Your task to perform on an android device: Clear the cart on costco. Search for "usb-c to usb-a" on costco, select the first entry, add it to the cart, then select checkout. Image 0: 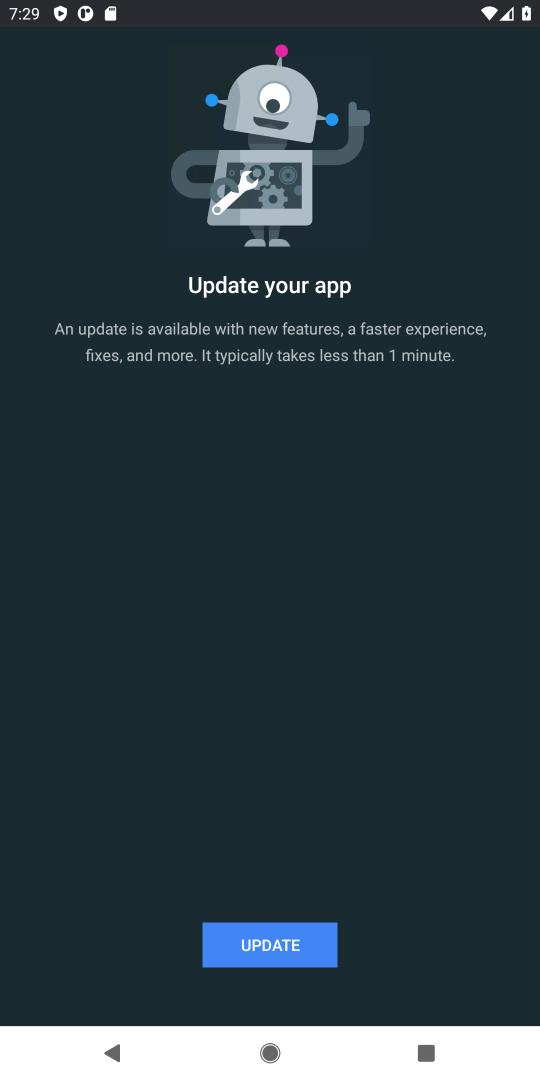
Step 0: press home button
Your task to perform on an android device: Clear the cart on costco. Search for "usb-c to usb-a" on costco, select the first entry, add it to the cart, then select checkout. Image 1: 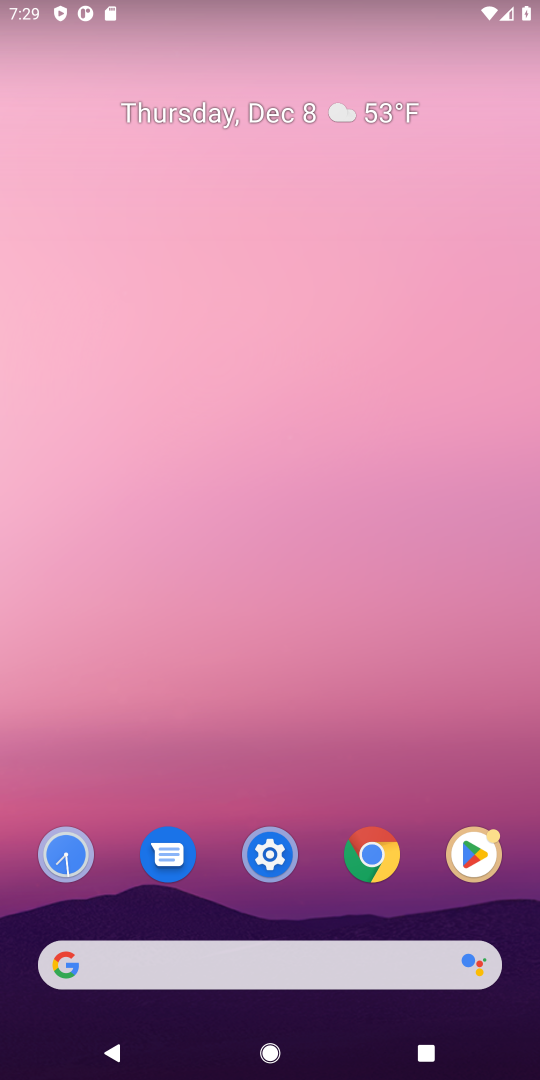
Step 1: click (91, 970)
Your task to perform on an android device: Clear the cart on costco. Search for "usb-c to usb-a" on costco, select the first entry, add it to the cart, then select checkout. Image 2: 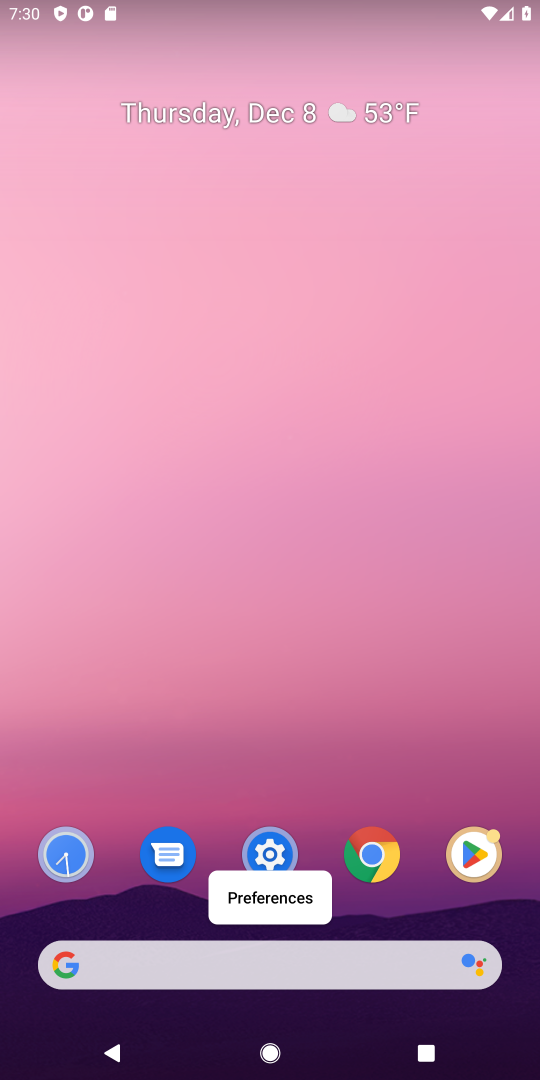
Step 2: click (97, 969)
Your task to perform on an android device: Clear the cart on costco. Search for "usb-c to usb-a" on costco, select the first entry, add it to the cart, then select checkout. Image 3: 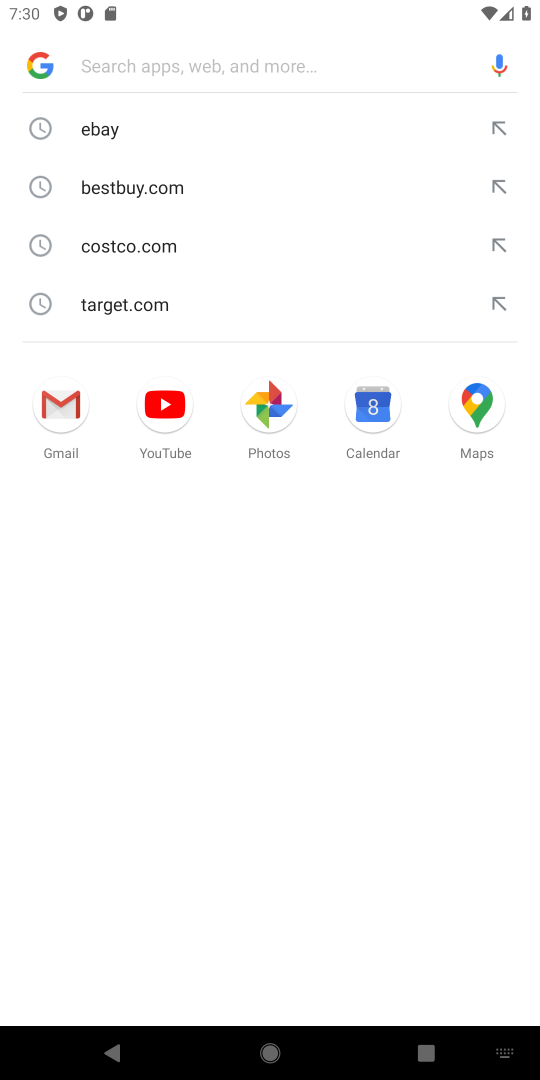
Step 3: type "costco"
Your task to perform on an android device: Clear the cart on costco. Search for "usb-c to usb-a" on costco, select the first entry, add it to the cart, then select checkout. Image 4: 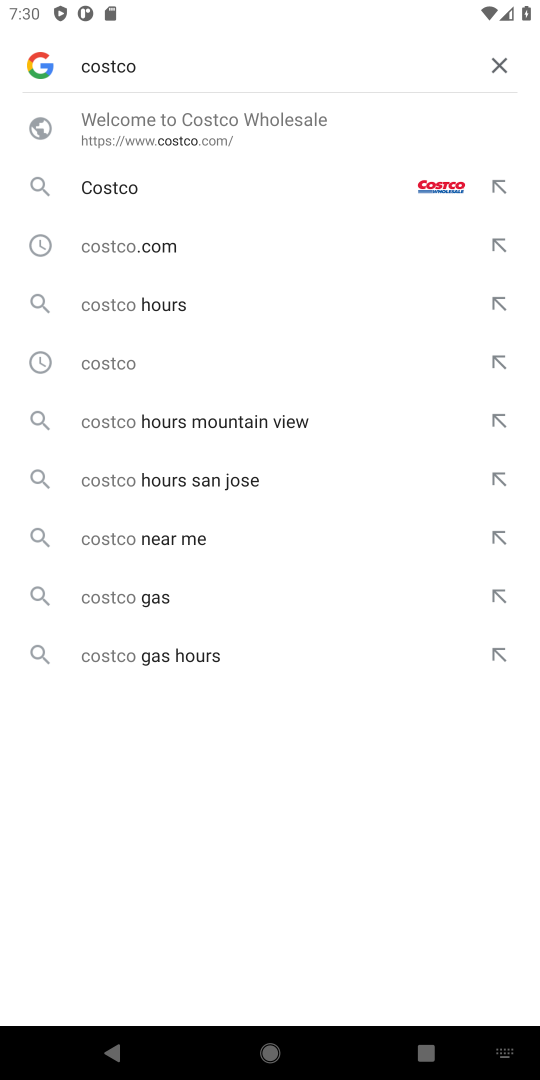
Step 4: press enter
Your task to perform on an android device: Clear the cart on costco. Search for "usb-c to usb-a" on costco, select the first entry, add it to the cart, then select checkout. Image 5: 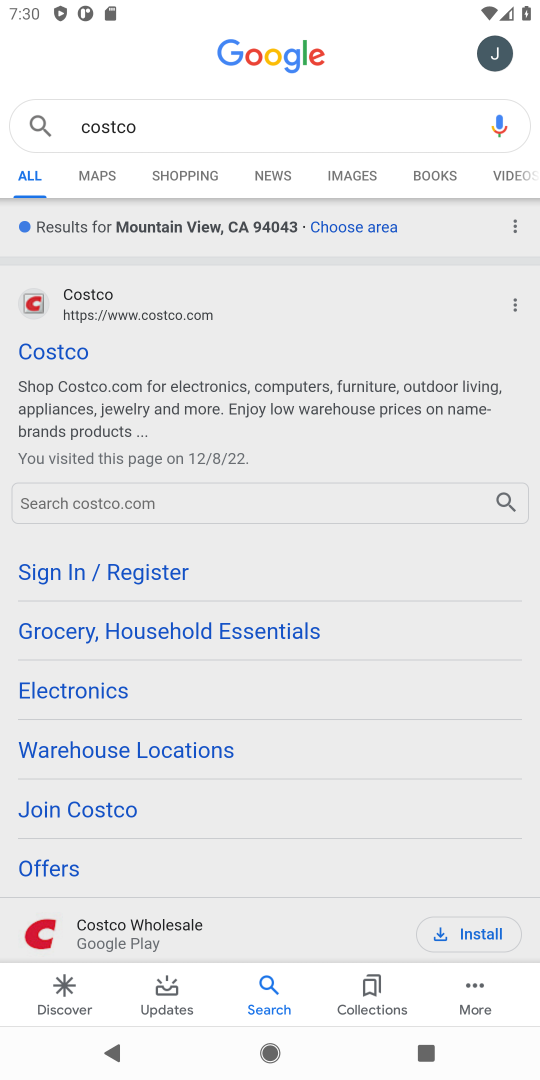
Step 5: click (37, 355)
Your task to perform on an android device: Clear the cart on costco. Search for "usb-c to usb-a" on costco, select the first entry, add it to the cart, then select checkout. Image 6: 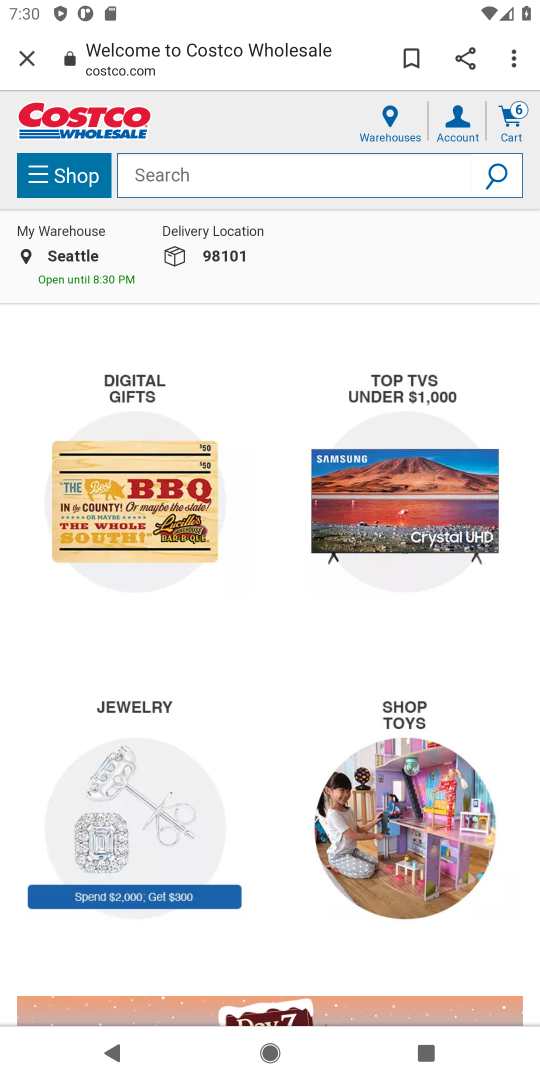
Step 6: click (505, 114)
Your task to perform on an android device: Clear the cart on costco. Search for "usb-c to usb-a" on costco, select the first entry, add it to the cart, then select checkout. Image 7: 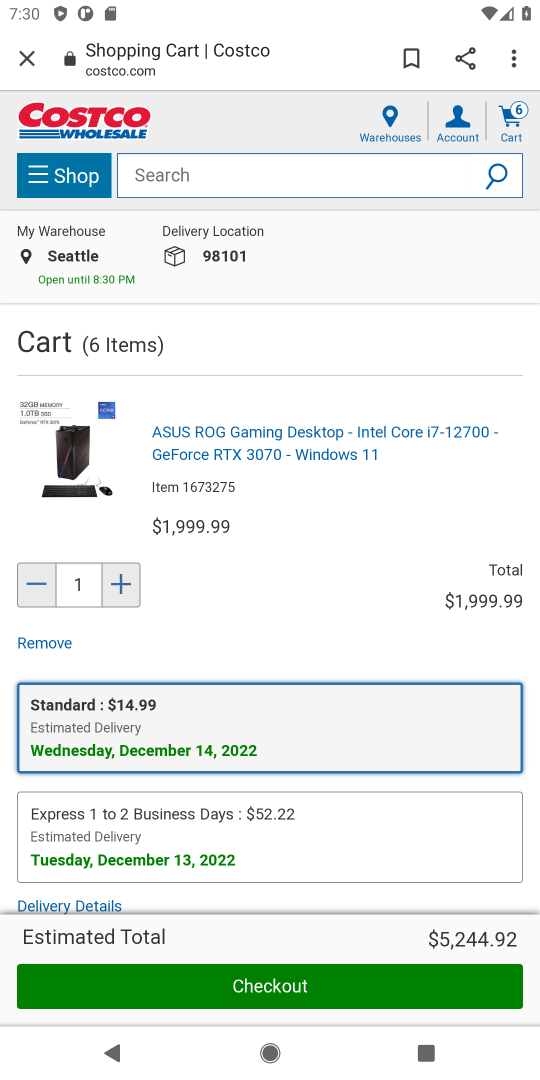
Step 7: click (33, 641)
Your task to perform on an android device: Clear the cart on costco. Search for "usb-c to usb-a" on costco, select the first entry, add it to the cart, then select checkout. Image 8: 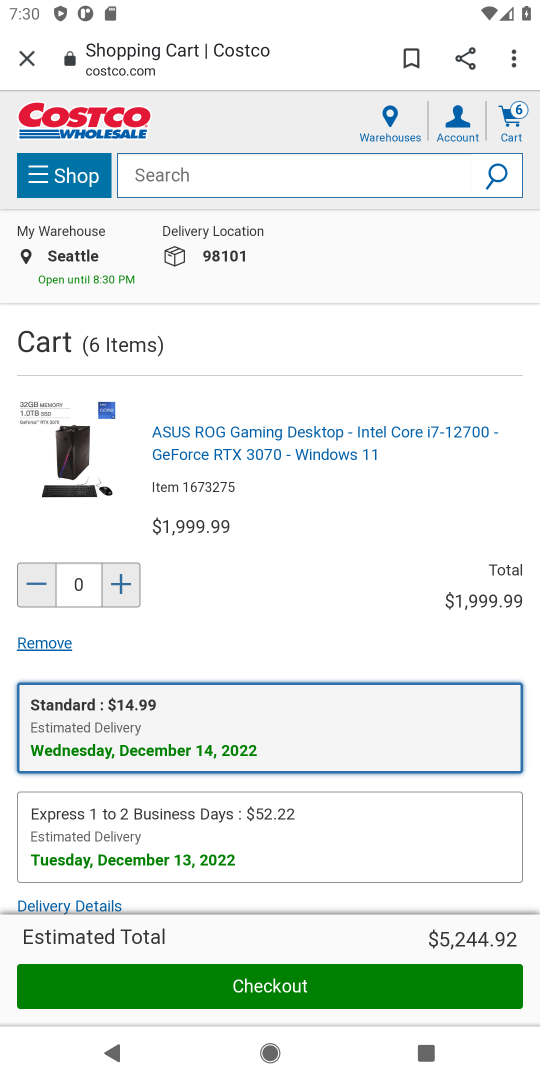
Step 8: drag from (284, 776) to (340, 342)
Your task to perform on an android device: Clear the cart on costco. Search for "usb-c to usb-a" on costco, select the first entry, add it to the cart, then select checkout. Image 9: 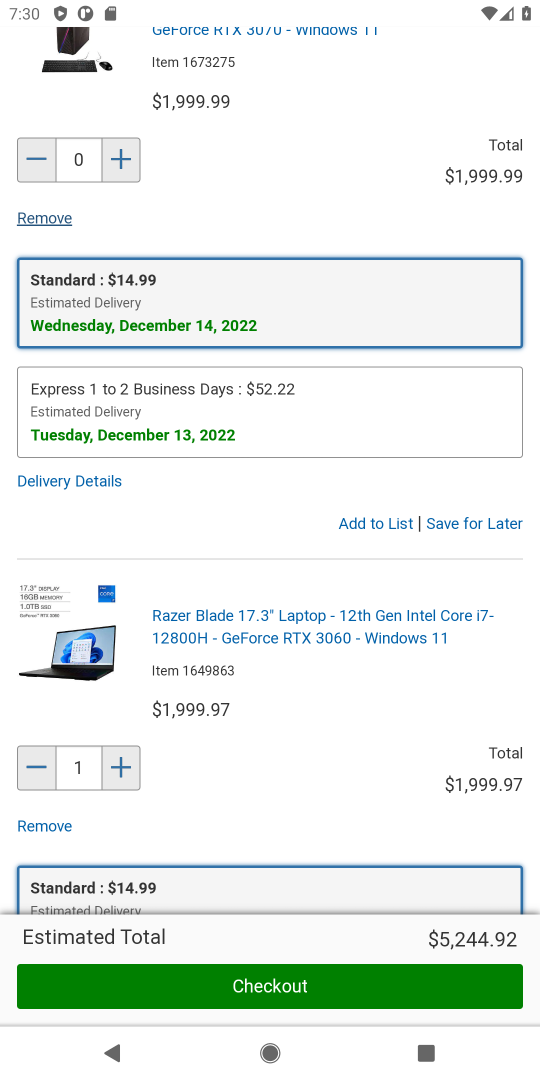
Step 9: click (39, 828)
Your task to perform on an android device: Clear the cart on costco. Search for "usb-c to usb-a" on costco, select the first entry, add it to the cart, then select checkout. Image 10: 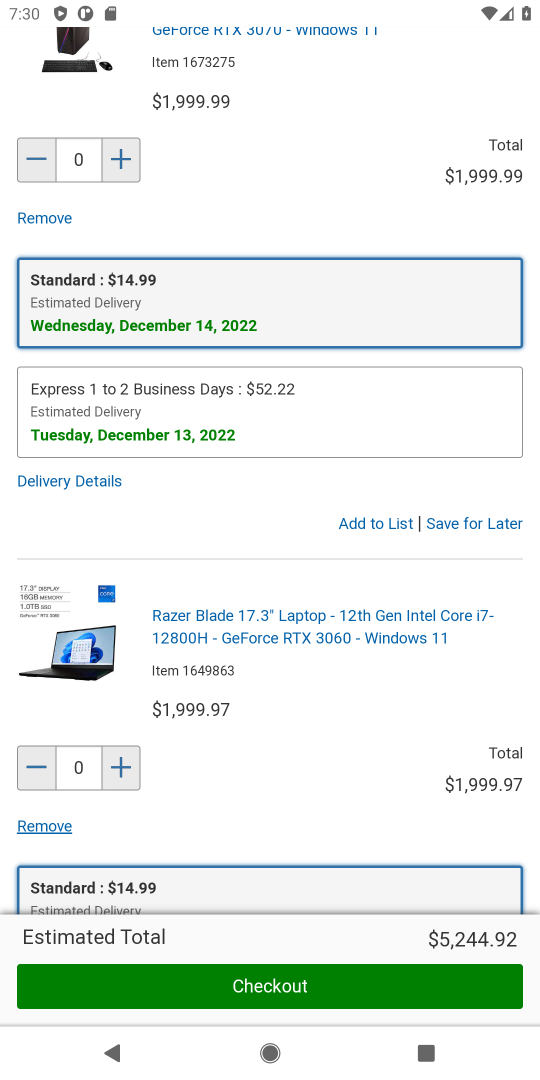
Step 10: drag from (256, 817) to (266, 325)
Your task to perform on an android device: Clear the cart on costco. Search for "usb-c to usb-a" on costco, select the first entry, add it to the cart, then select checkout. Image 11: 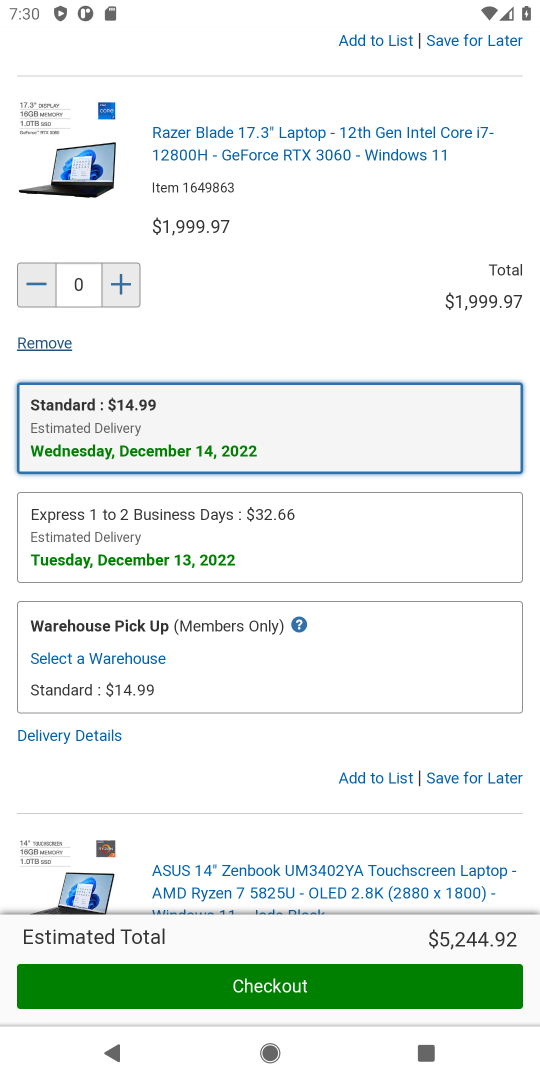
Step 11: drag from (261, 838) to (283, 492)
Your task to perform on an android device: Clear the cart on costco. Search for "usb-c to usb-a" on costco, select the first entry, add it to the cart, then select checkout. Image 12: 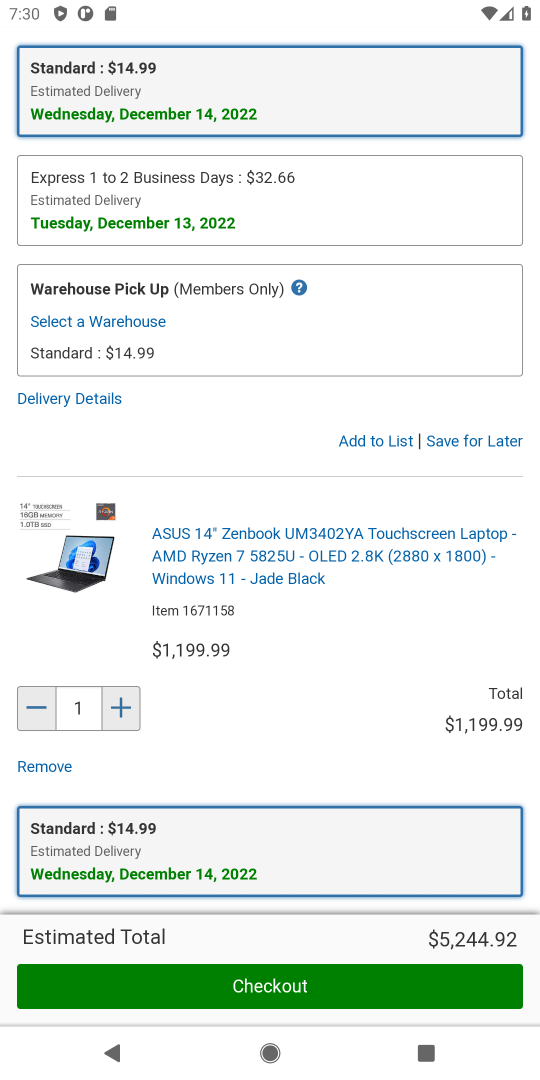
Step 12: press back button
Your task to perform on an android device: Clear the cart on costco. Search for "usb-c to usb-a" on costco, select the first entry, add it to the cart, then select checkout. Image 13: 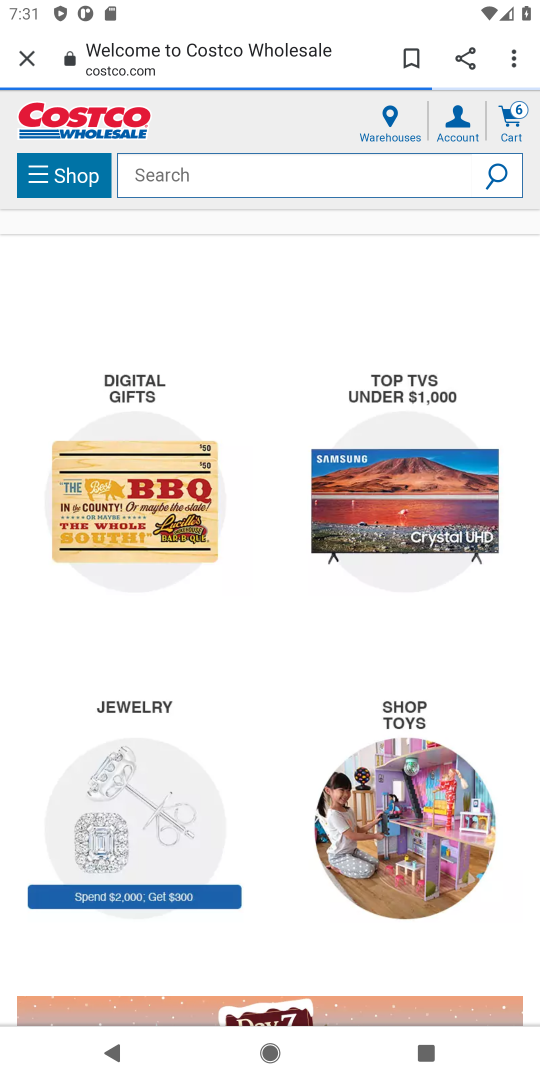
Step 13: click (224, 171)
Your task to perform on an android device: Clear the cart on costco. Search for "usb-c to usb-a" on costco, select the first entry, add it to the cart, then select checkout. Image 14: 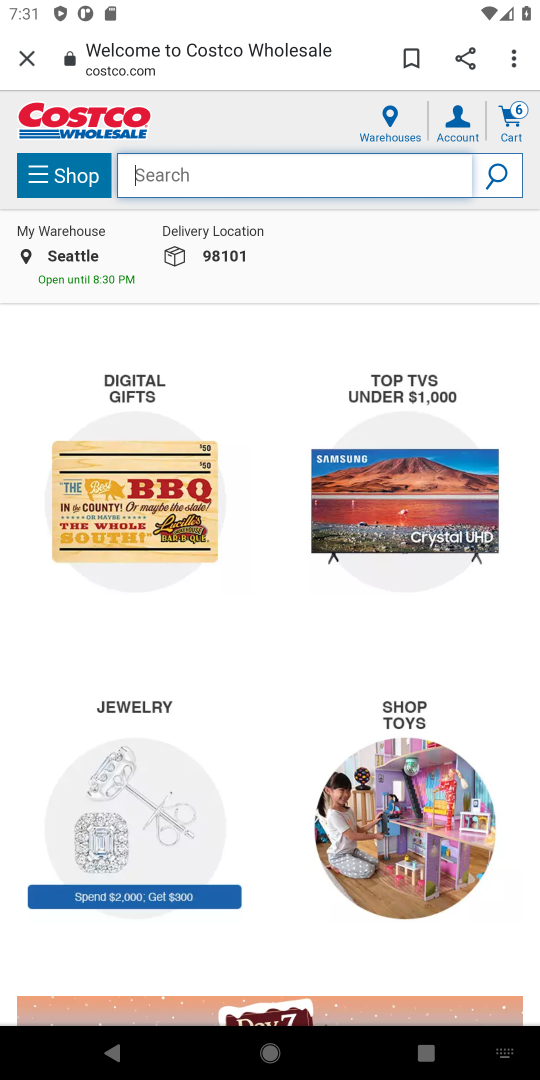
Step 14: type "usb-c to usb-a"
Your task to perform on an android device: Clear the cart on costco. Search for "usb-c to usb-a" on costco, select the first entry, add it to the cart, then select checkout. Image 15: 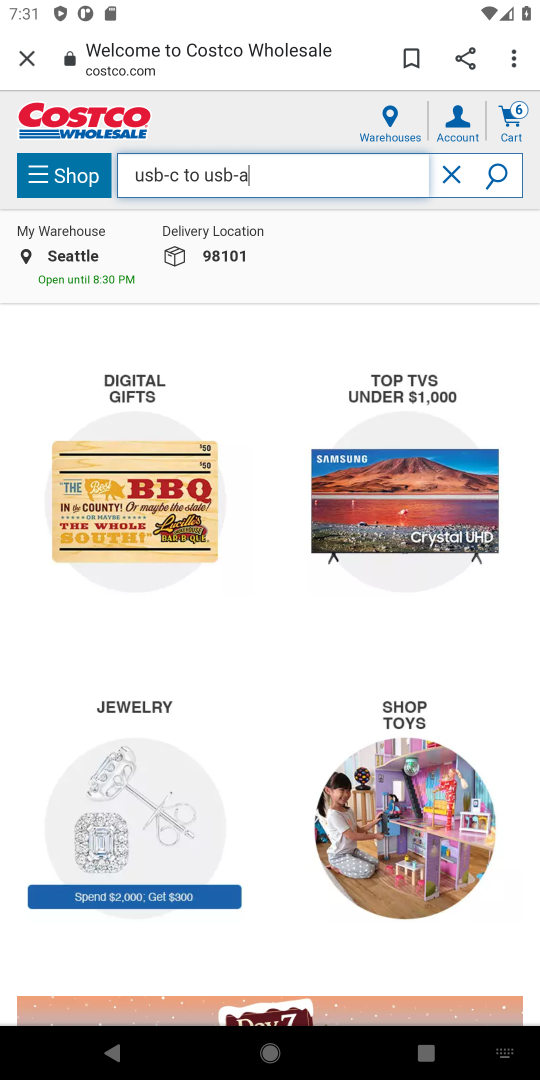
Step 15: press enter
Your task to perform on an android device: Clear the cart on costco. Search for "usb-c to usb-a" on costco, select the first entry, add it to the cart, then select checkout. Image 16: 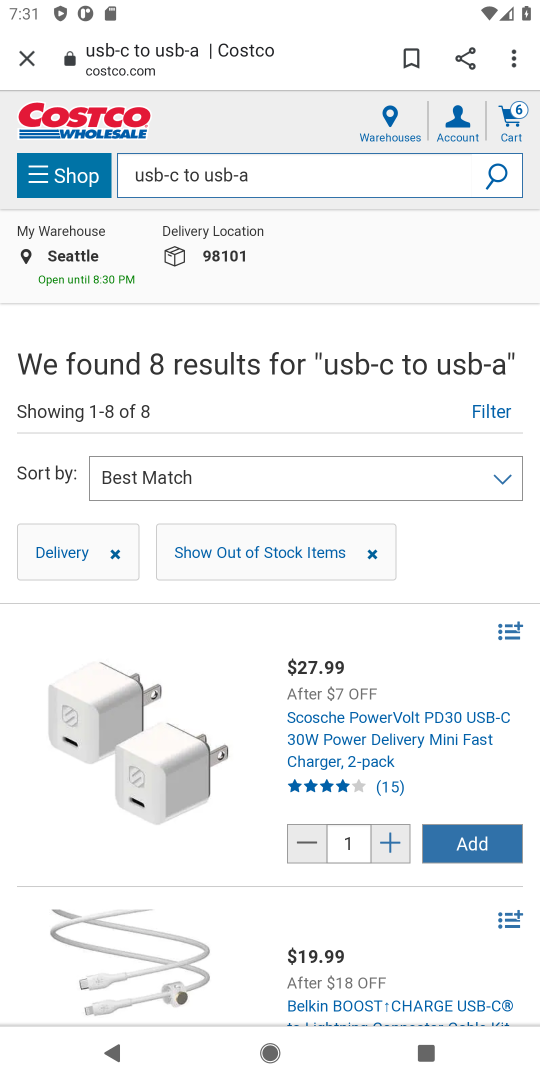
Step 16: task complete